Your task to perform on an android device: What's the weather? Image 0: 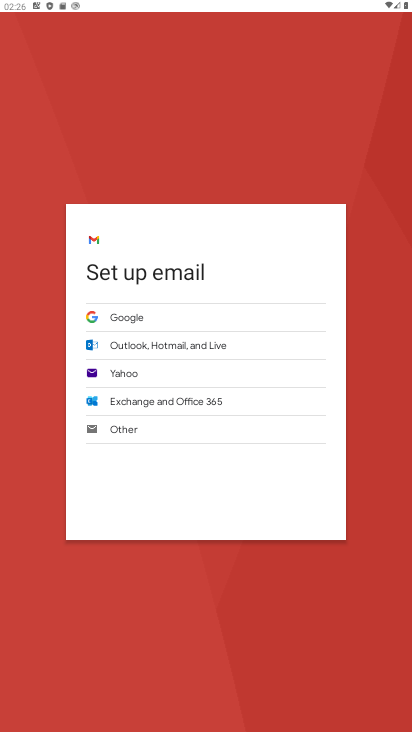
Step 0: press home button
Your task to perform on an android device: What's the weather? Image 1: 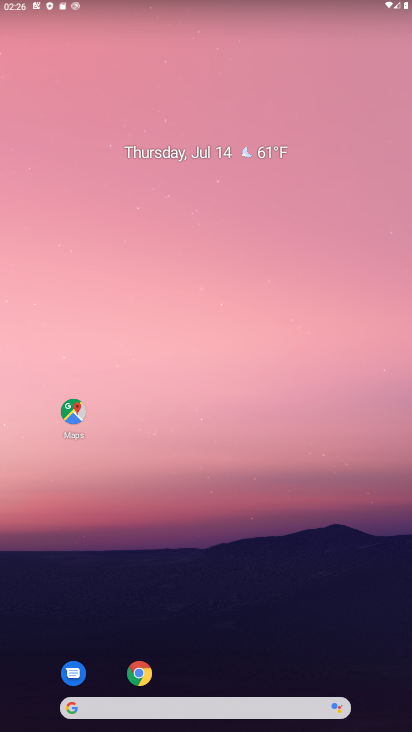
Step 1: drag from (272, 610) to (334, 61)
Your task to perform on an android device: What's the weather? Image 2: 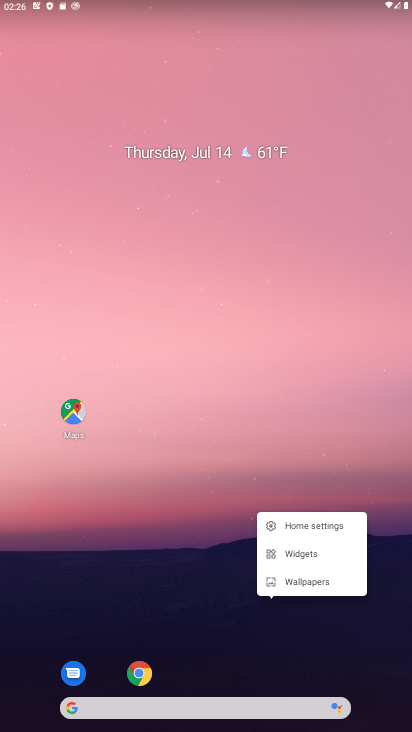
Step 2: click (183, 580)
Your task to perform on an android device: What's the weather? Image 3: 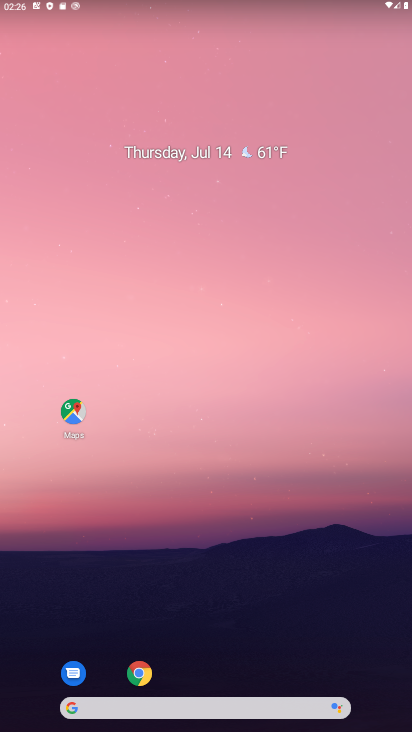
Step 3: drag from (223, 681) to (261, 168)
Your task to perform on an android device: What's the weather? Image 4: 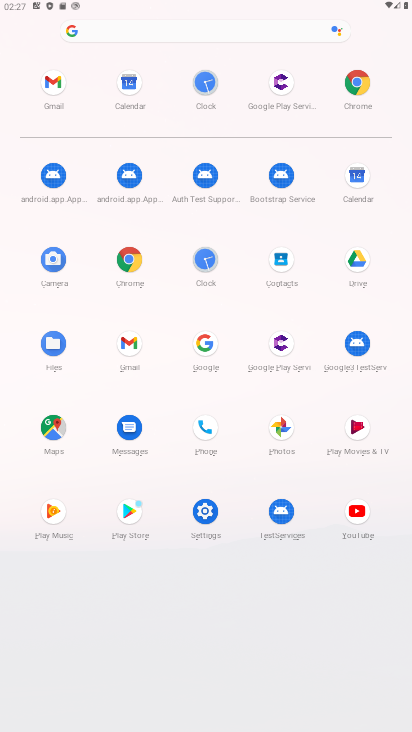
Step 4: click (195, 28)
Your task to perform on an android device: What's the weather? Image 5: 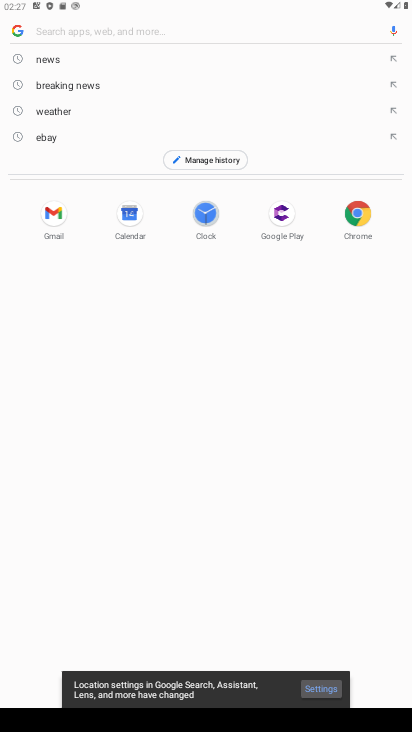
Step 5: click (89, 102)
Your task to perform on an android device: What's the weather? Image 6: 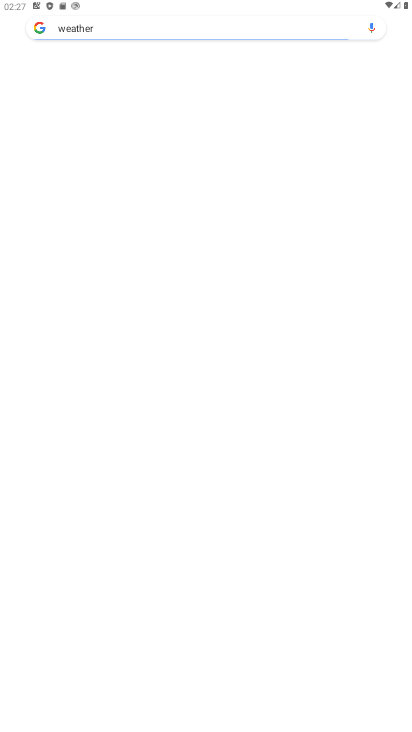
Step 6: task complete